Your task to perform on an android device: turn on priority inbox in the gmail app Image 0: 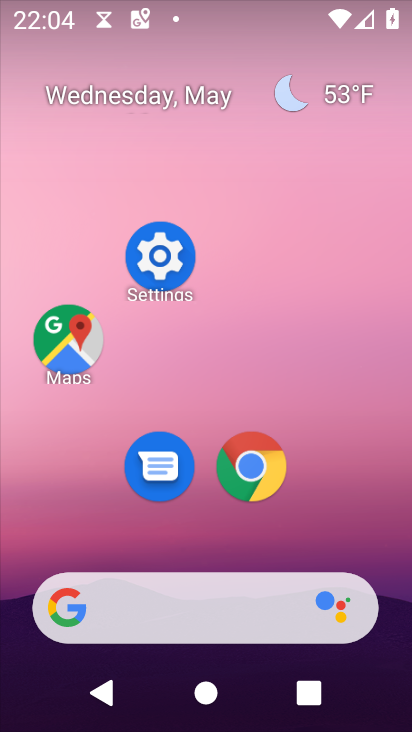
Step 0: drag from (194, 546) to (293, 6)
Your task to perform on an android device: turn on priority inbox in the gmail app Image 1: 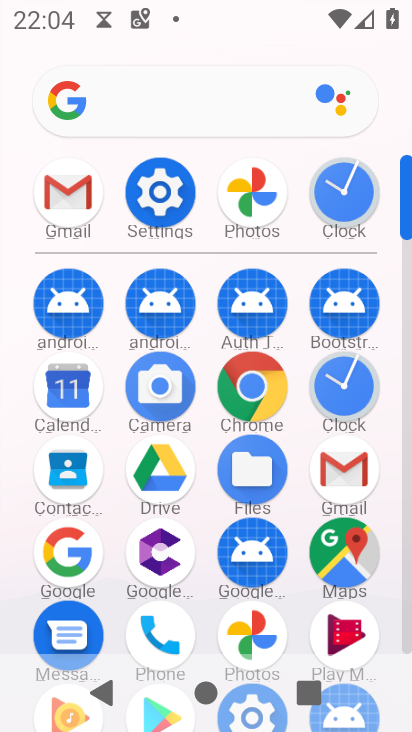
Step 1: click (343, 474)
Your task to perform on an android device: turn on priority inbox in the gmail app Image 2: 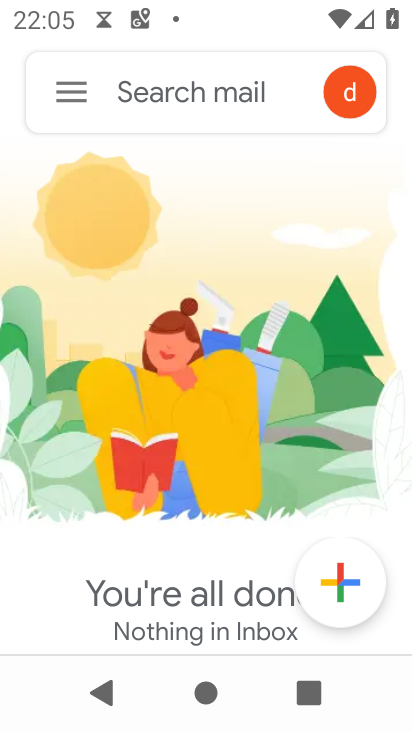
Step 2: drag from (248, 449) to (288, 232)
Your task to perform on an android device: turn on priority inbox in the gmail app Image 3: 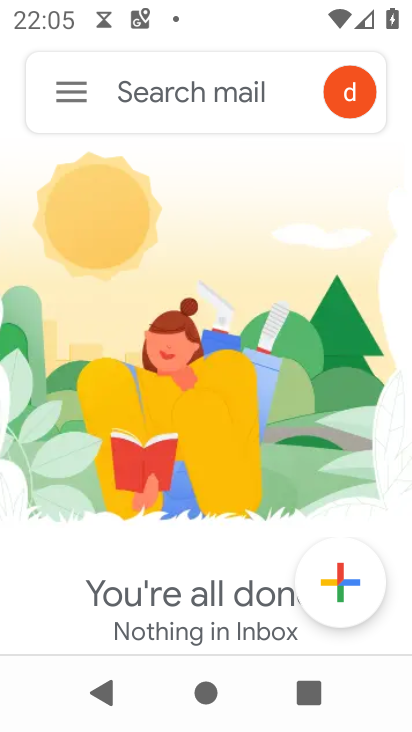
Step 3: click (76, 111)
Your task to perform on an android device: turn on priority inbox in the gmail app Image 4: 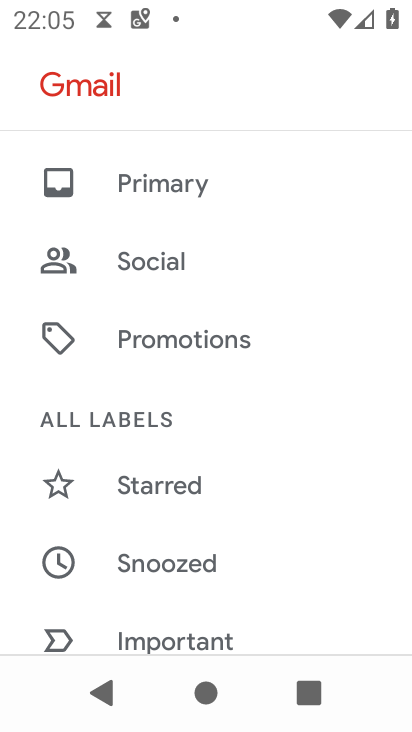
Step 4: drag from (190, 465) to (285, 78)
Your task to perform on an android device: turn on priority inbox in the gmail app Image 5: 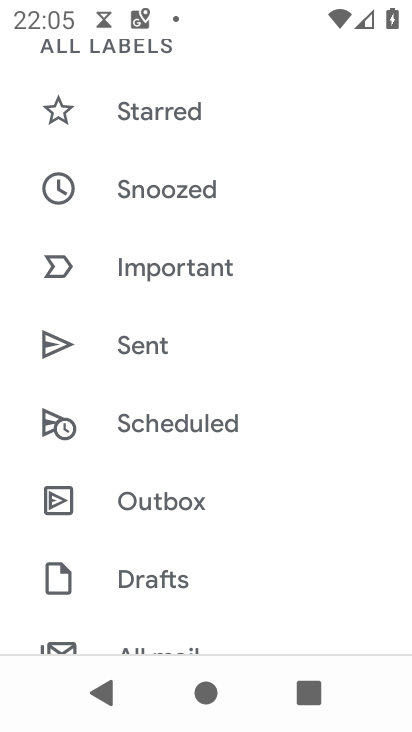
Step 5: drag from (252, 445) to (298, 209)
Your task to perform on an android device: turn on priority inbox in the gmail app Image 6: 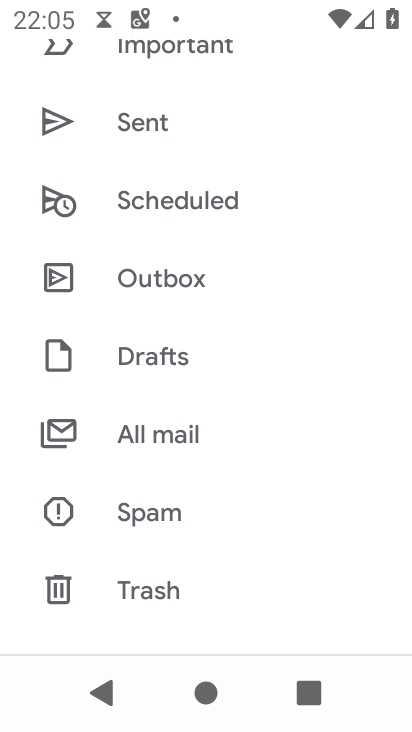
Step 6: drag from (239, 544) to (285, 177)
Your task to perform on an android device: turn on priority inbox in the gmail app Image 7: 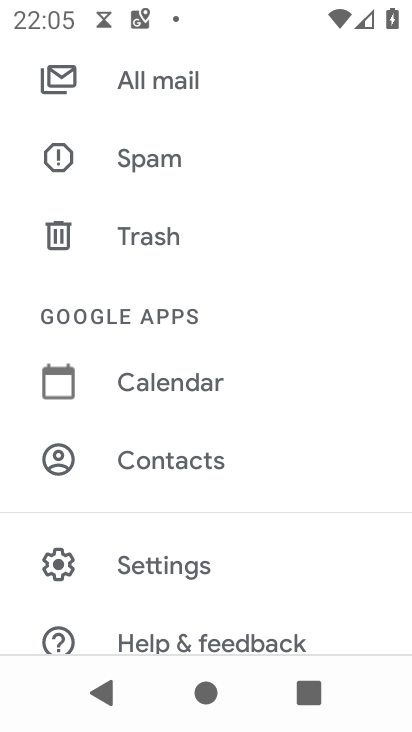
Step 7: drag from (200, 601) to (263, 184)
Your task to perform on an android device: turn on priority inbox in the gmail app Image 8: 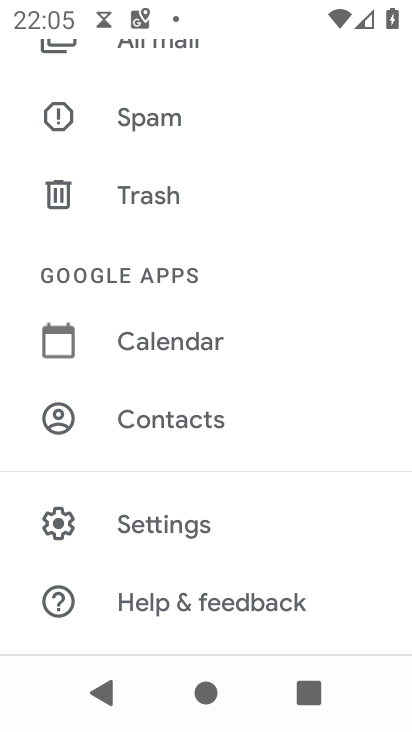
Step 8: click (186, 524)
Your task to perform on an android device: turn on priority inbox in the gmail app Image 9: 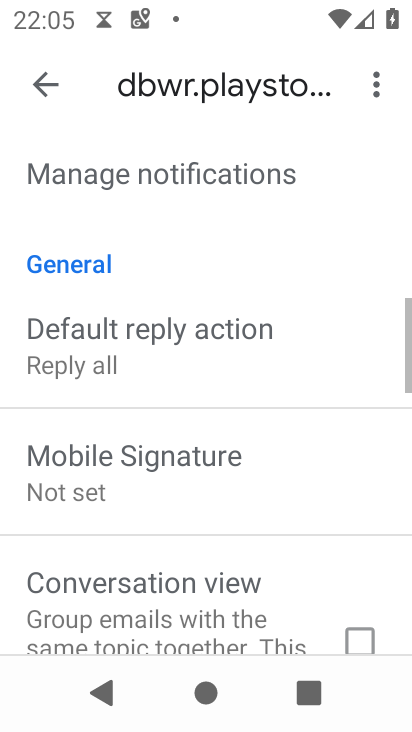
Step 9: drag from (232, 483) to (290, 190)
Your task to perform on an android device: turn on priority inbox in the gmail app Image 10: 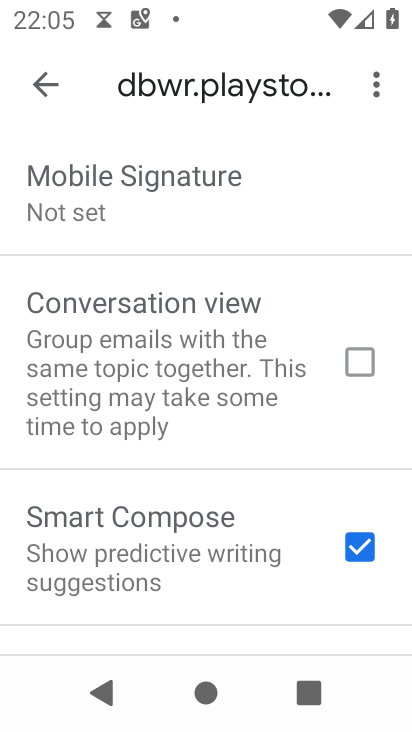
Step 10: drag from (238, 167) to (379, 692)
Your task to perform on an android device: turn on priority inbox in the gmail app Image 11: 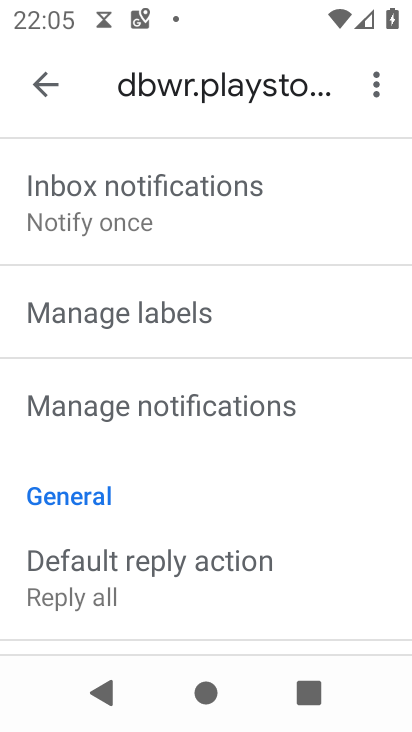
Step 11: drag from (212, 270) to (259, 724)
Your task to perform on an android device: turn on priority inbox in the gmail app Image 12: 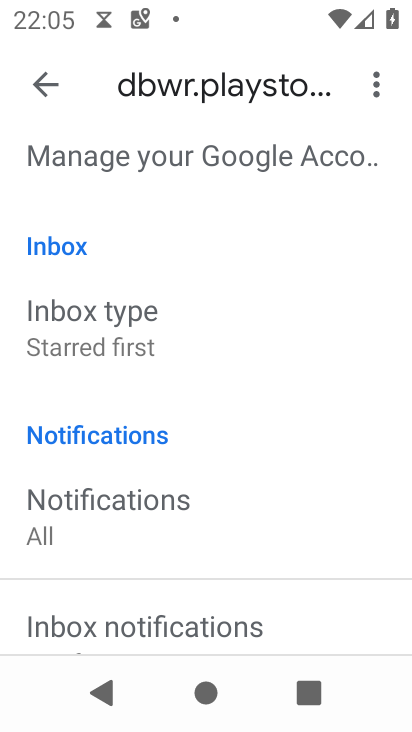
Step 12: click (153, 317)
Your task to perform on an android device: turn on priority inbox in the gmail app Image 13: 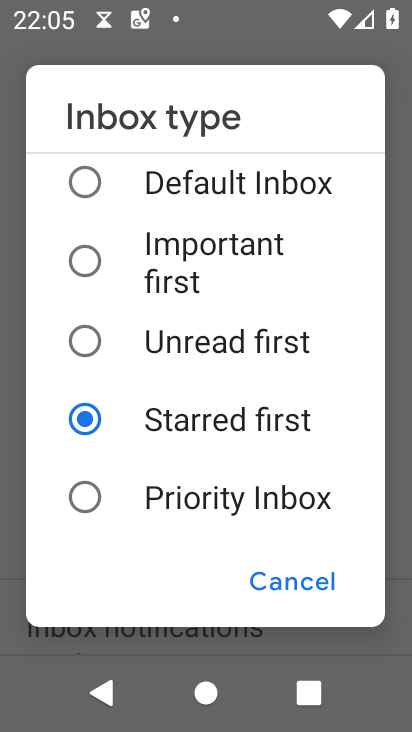
Step 13: click (211, 500)
Your task to perform on an android device: turn on priority inbox in the gmail app Image 14: 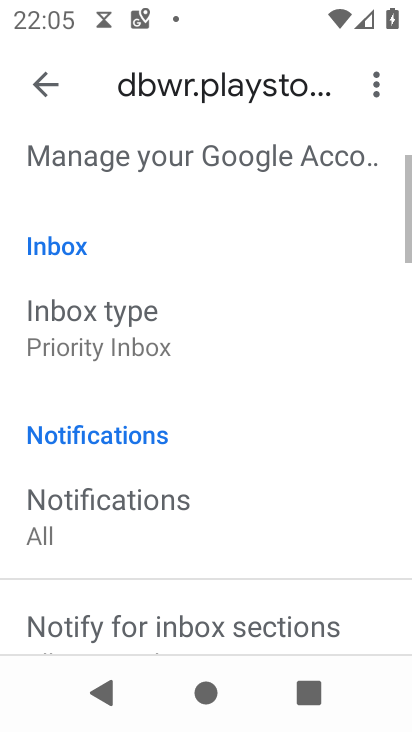
Step 14: task complete